Your task to perform on an android device: Show me popular games on the Play Store Image 0: 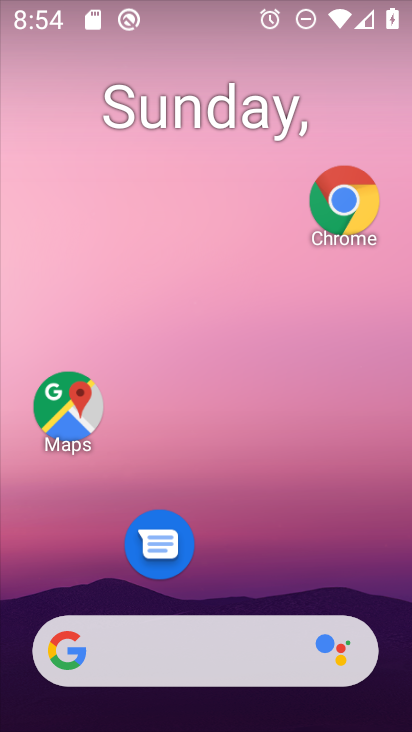
Step 0: drag from (271, 576) to (317, 59)
Your task to perform on an android device: Show me popular games on the Play Store Image 1: 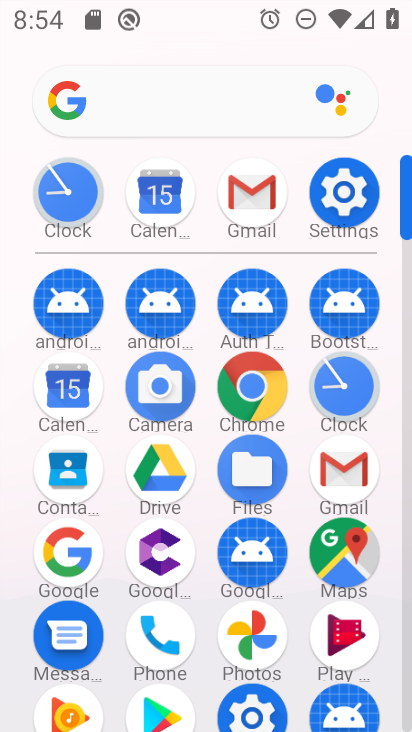
Step 1: drag from (193, 513) to (234, 207)
Your task to perform on an android device: Show me popular games on the Play Store Image 2: 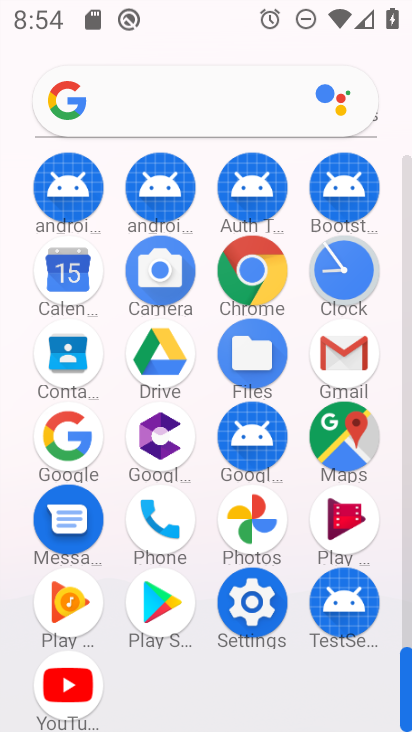
Step 2: click (136, 594)
Your task to perform on an android device: Show me popular games on the Play Store Image 3: 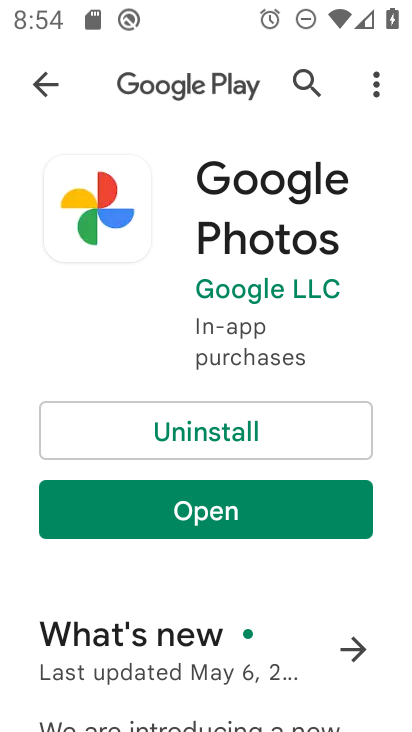
Step 3: click (62, 86)
Your task to perform on an android device: Show me popular games on the Play Store Image 4: 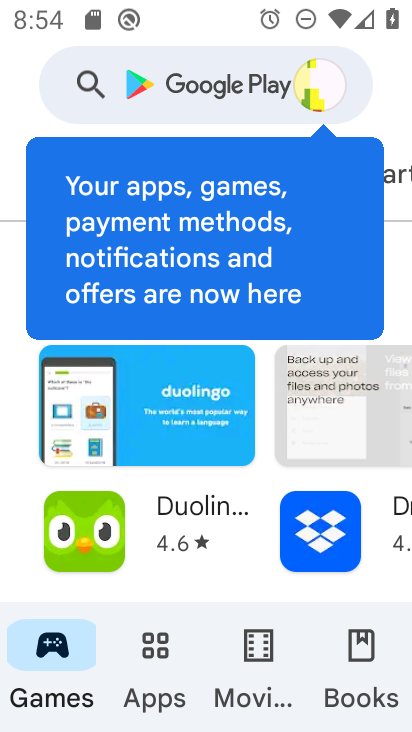
Step 4: click (55, 676)
Your task to perform on an android device: Show me popular games on the Play Store Image 5: 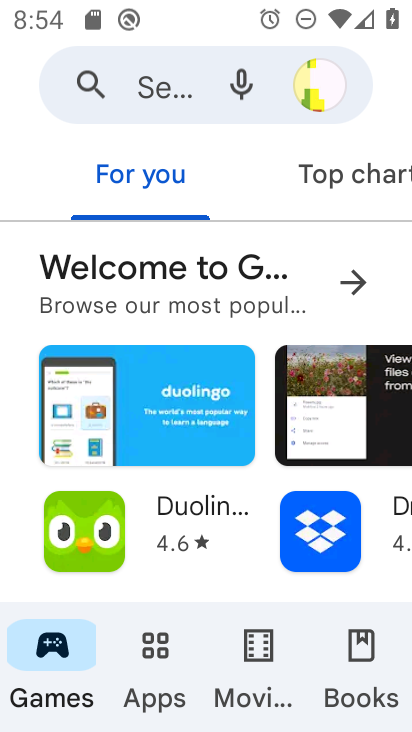
Step 5: click (323, 175)
Your task to perform on an android device: Show me popular games on the Play Store Image 6: 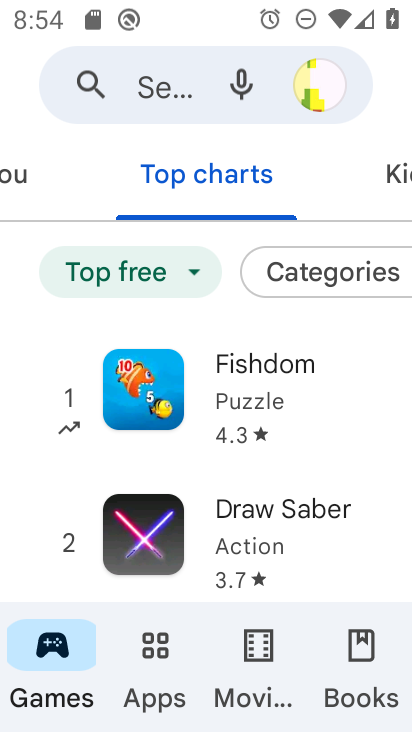
Step 6: task complete